Your task to perform on an android device: change notification settings in the gmail app Image 0: 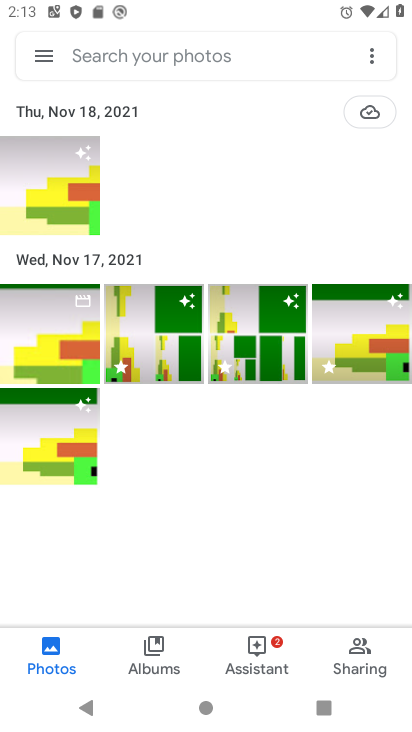
Step 0: press home button
Your task to perform on an android device: change notification settings in the gmail app Image 1: 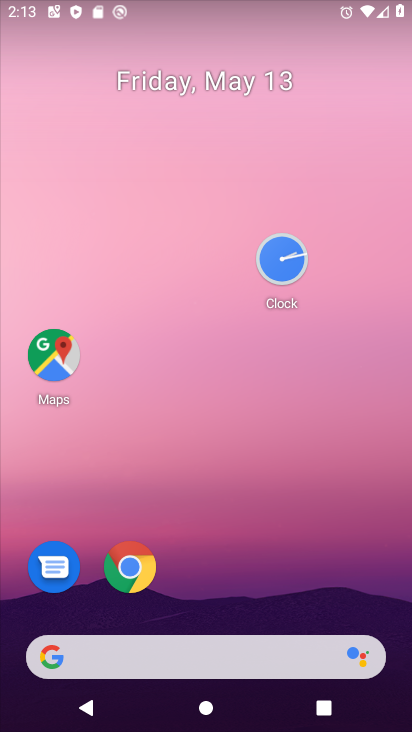
Step 1: drag from (280, 573) to (259, 39)
Your task to perform on an android device: change notification settings in the gmail app Image 2: 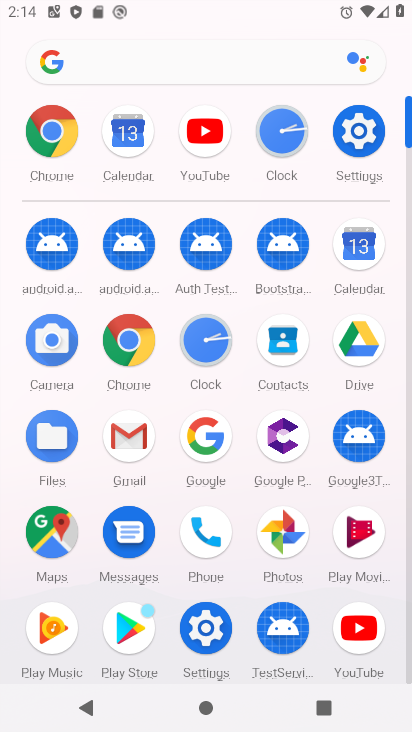
Step 2: click (292, 556)
Your task to perform on an android device: change notification settings in the gmail app Image 3: 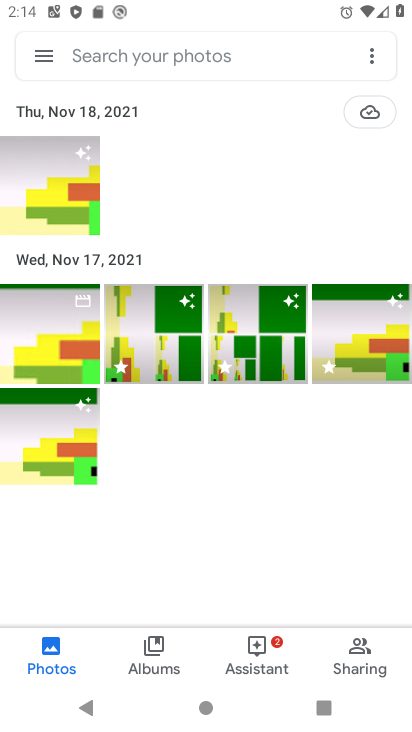
Step 3: press home button
Your task to perform on an android device: change notification settings in the gmail app Image 4: 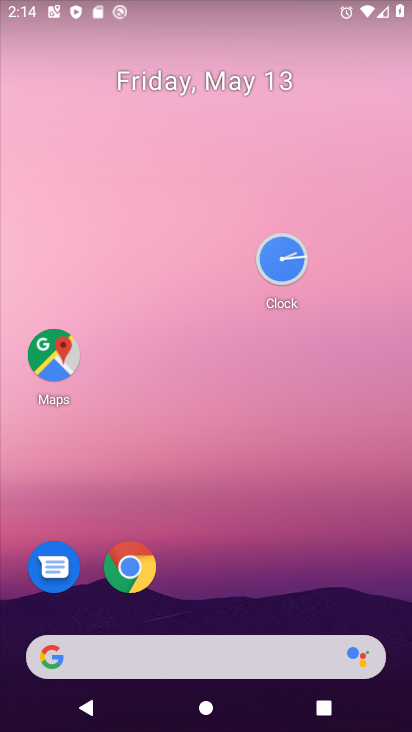
Step 4: drag from (256, 592) to (270, 223)
Your task to perform on an android device: change notification settings in the gmail app Image 5: 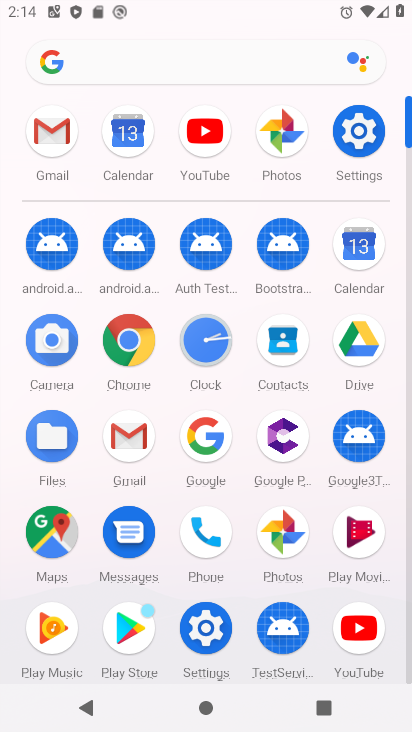
Step 5: click (134, 462)
Your task to perform on an android device: change notification settings in the gmail app Image 6: 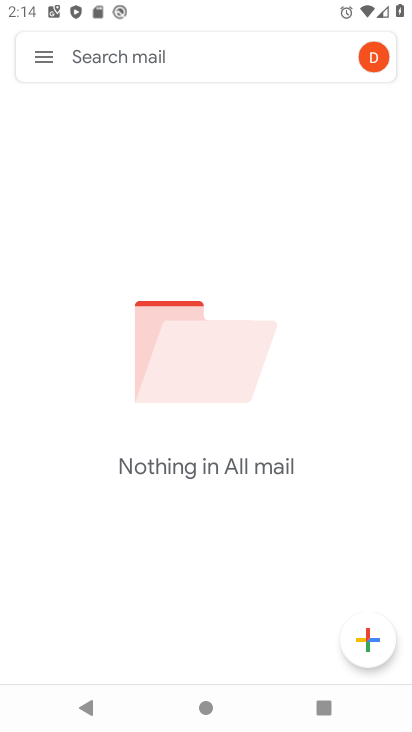
Step 6: click (45, 51)
Your task to perform on an android device: change notification settings in the gmail app Image 7: 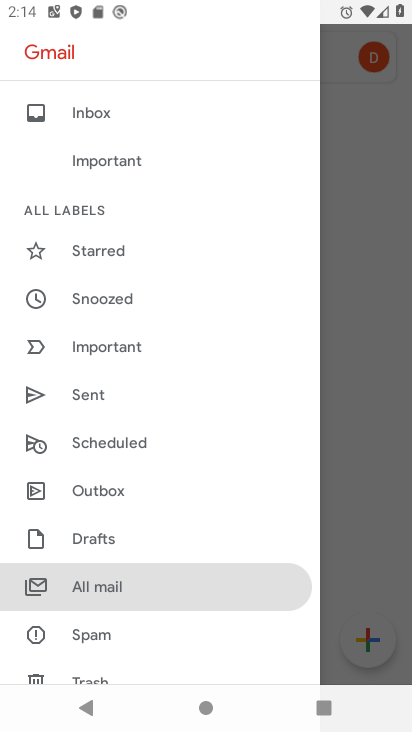
Step 7: drag from (86, 689) to (140, 492)
Your task to perform on an android device: change notification settings in the gmail app Image 8: 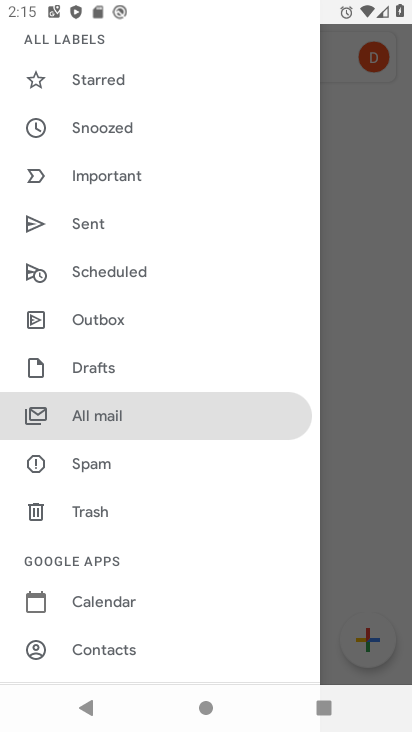
Step 8: drag from (107, 604) to (142, 475)
Your task to perform on an android device: change notification settings in the gmail app Image 9: 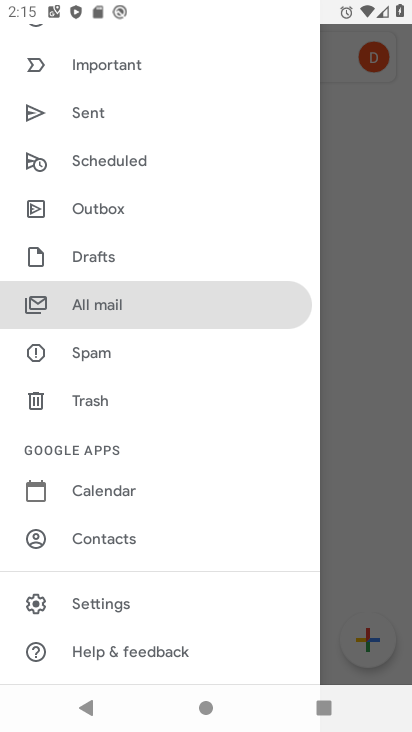
Step 9: click (100, 606)
Your task to perform on an android device: change notification settings in the gmail app Image 10: 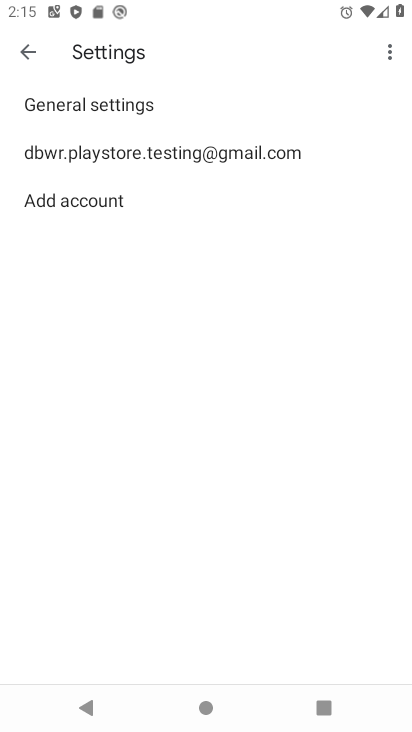
Step 10: click (166, 112)
Your task to perform on an android device: change notification settings in the gmail app Image 11: 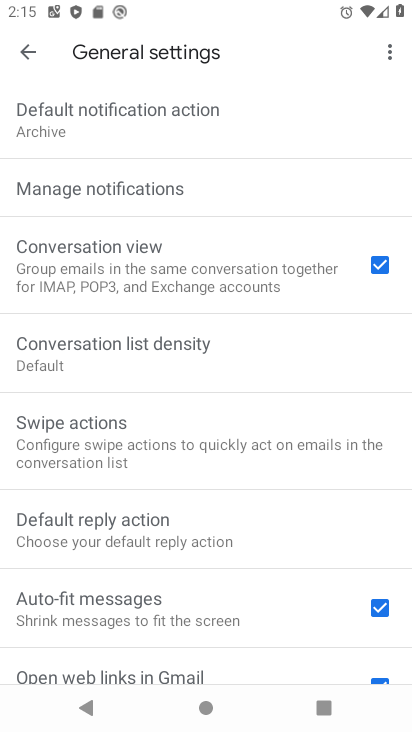
Step 11: click (137, 209)
Your task to perform on an android device: change notification settings in the gmail app Image 12: 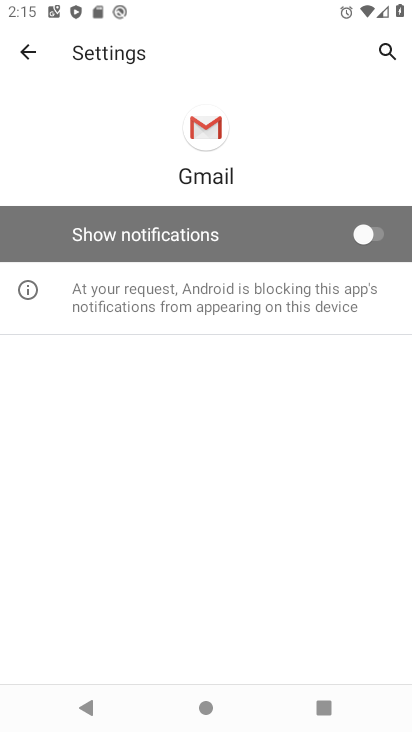
Step 12: click (131, 228)
Your task to perform on an android device: change notification settings in the gmail app Image 13: 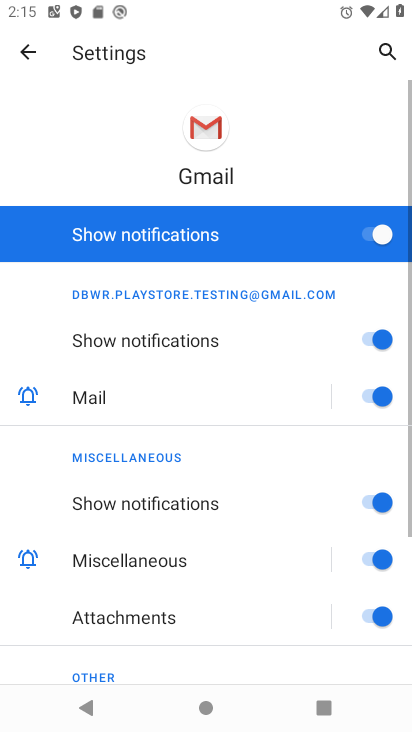
Step 13: task complete